Your task to perform on an android device: Go to Wikipedia Image 0: 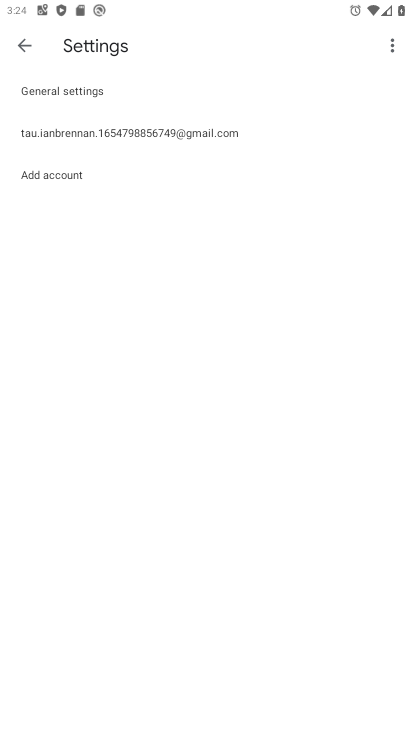
Step 0: press home button
Your task to perform on an android device: Go to Wikipedia Image 1: 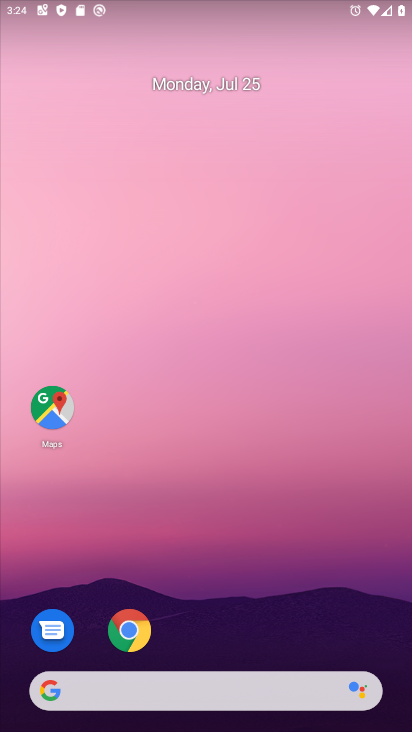
Step 1: drag from (180, 686) to (189, 117)
Your task to perform on an android device: Go to Wikipedia Image 2: 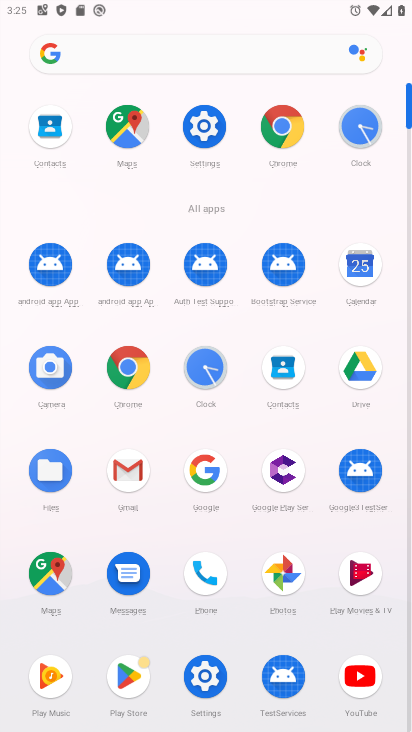
Step 2: click (286, 128)
Your task to perform on an android device: Go to Wikipedia Image 3: 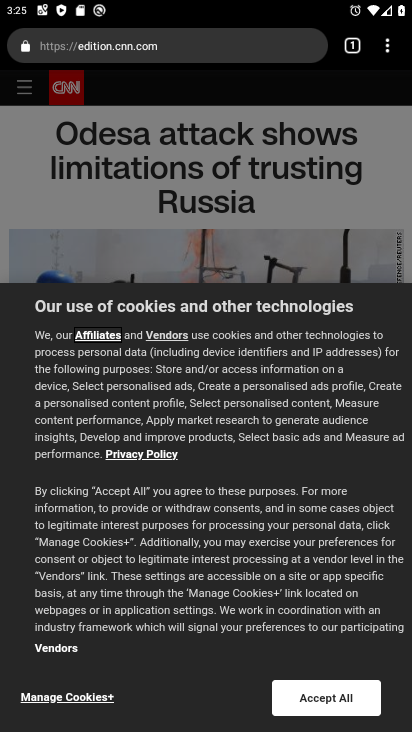
Step 3: click (212, 62)
Your task to perform on an android device: Go to Wikipedia Image 4: 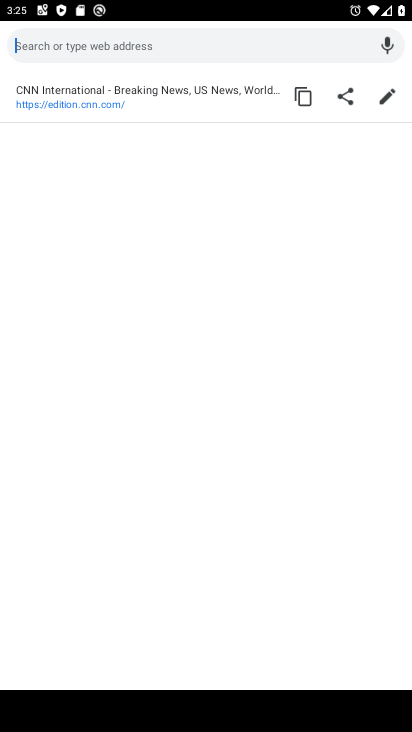
Step 4: type "wikipedia"
Your task to perform on an android device: Go to Wikipedia Image 5: 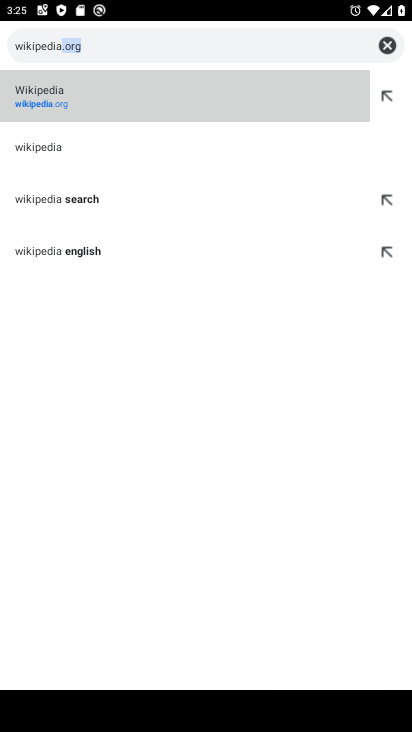
Step 5: click (82, 84)
Your task to perform on an android device: Go to Wikipedia Image 6: 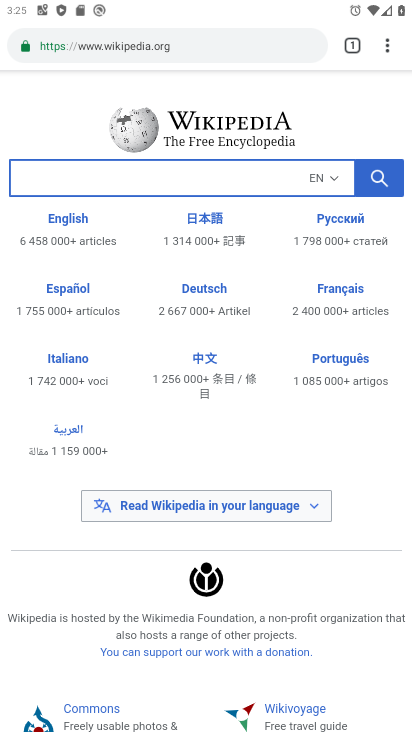
Step 6: task complete